Your task to perform on an android device: Search for floor lamps on article.com Image 0: 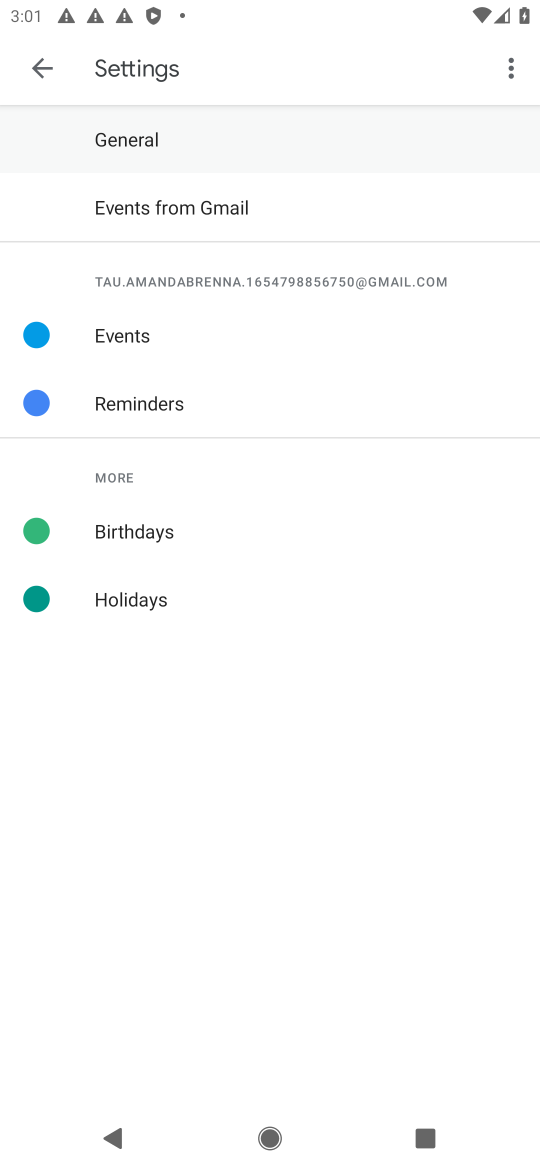
Step 0: press home button
Your task to perform on an android device: Search for floor lamps on article.com Image 1: 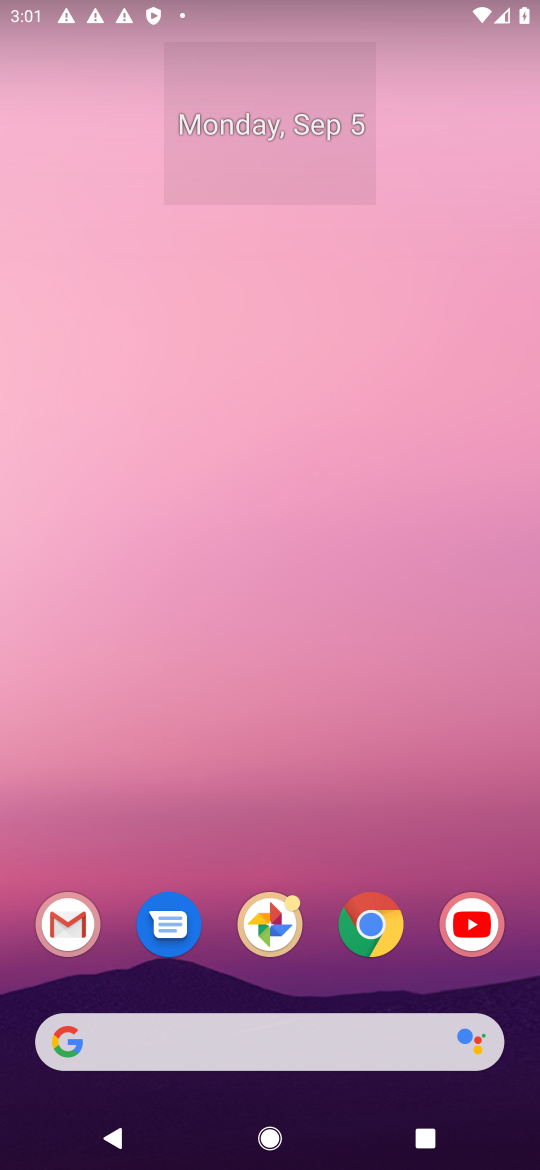
Step 1: drag from (289, 1013) to (300, 361)
Your task to perform on an android device: Search for floor lamps on article.com Image 2: 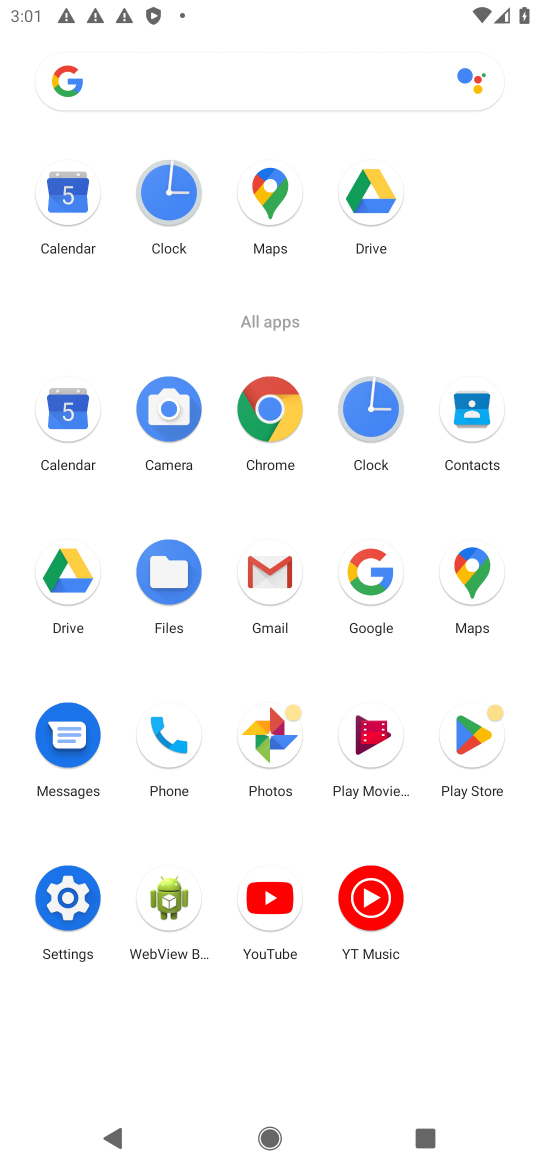
Step 2: click (265, 420)
Your task to perform on an android device: Search for floor lamps on article.com Image 3: 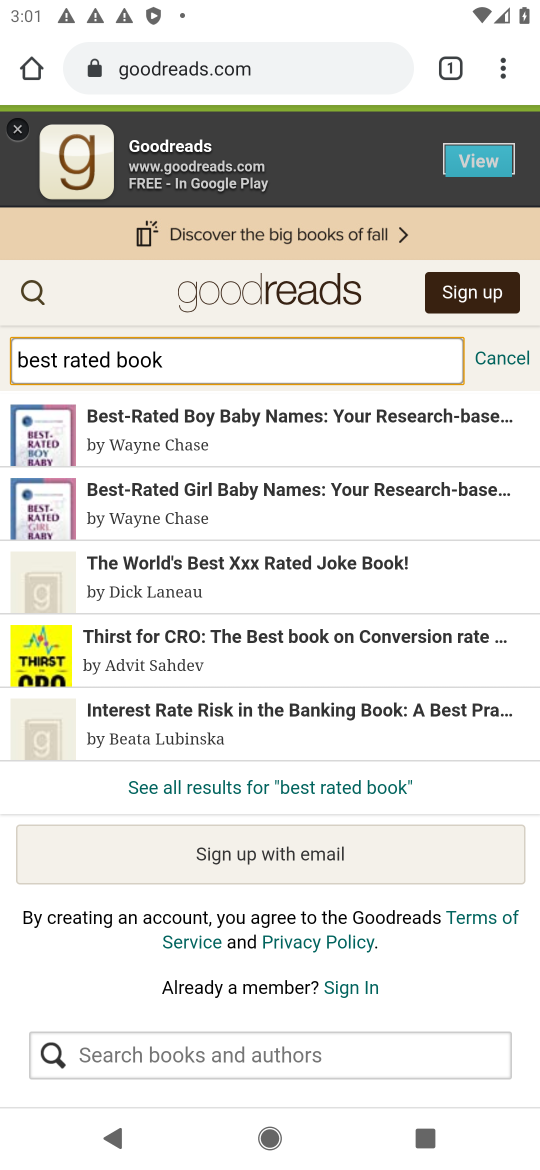
Step 3: click (304, 81)
Your task to perform on an android device: Search for floor lamps on article.com Image 4: 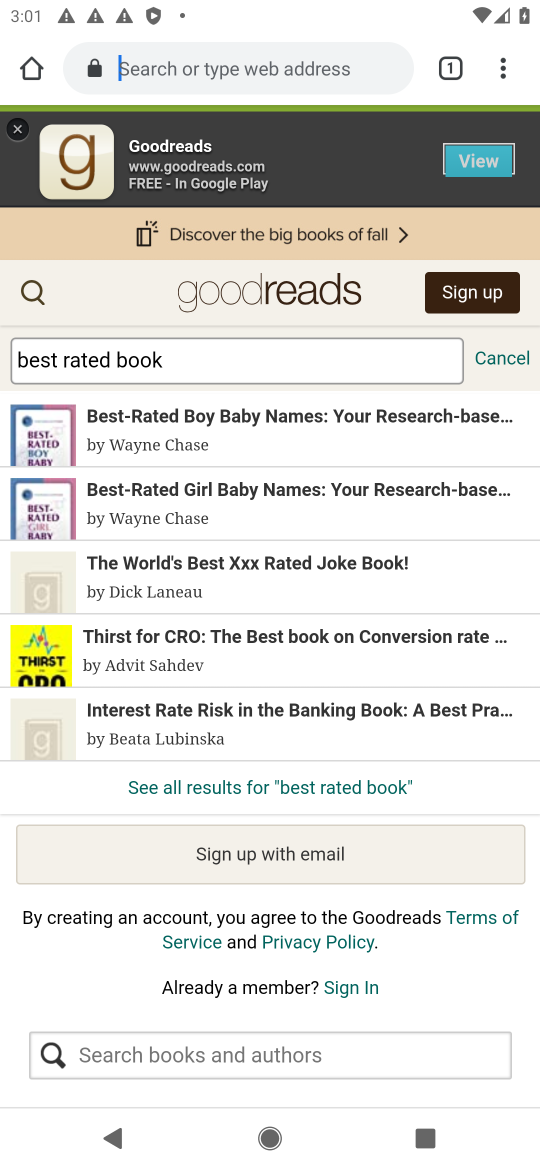
Step 4: click (304, 81)
Your task to perform on an android device: Search for floor lamps on article.com Image 5: 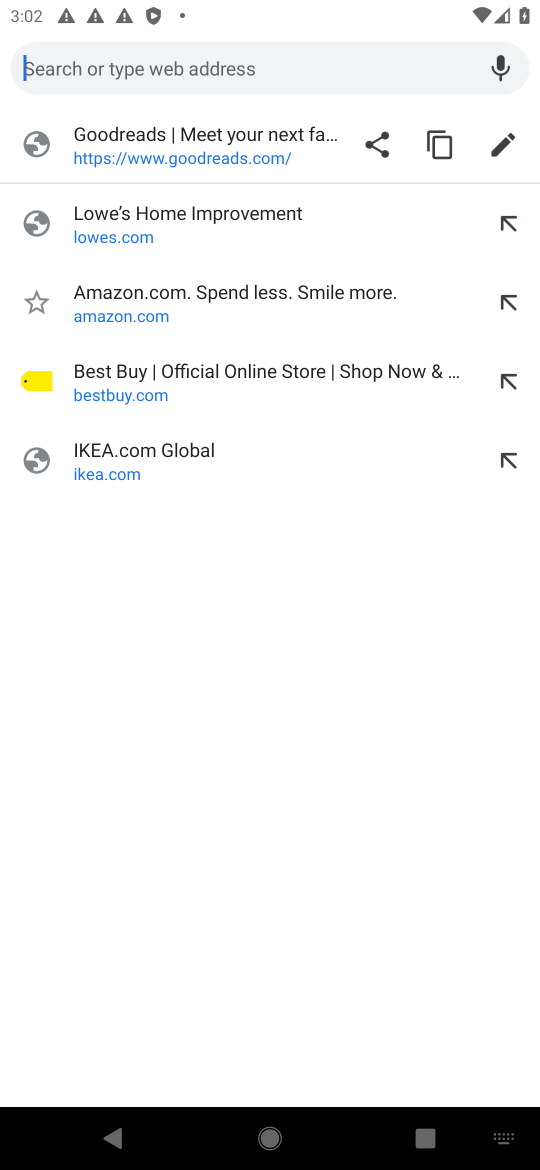
Step 5: type "article.com"
Your task to perform on an android device: Search for floor lamps on article.com Image 6: 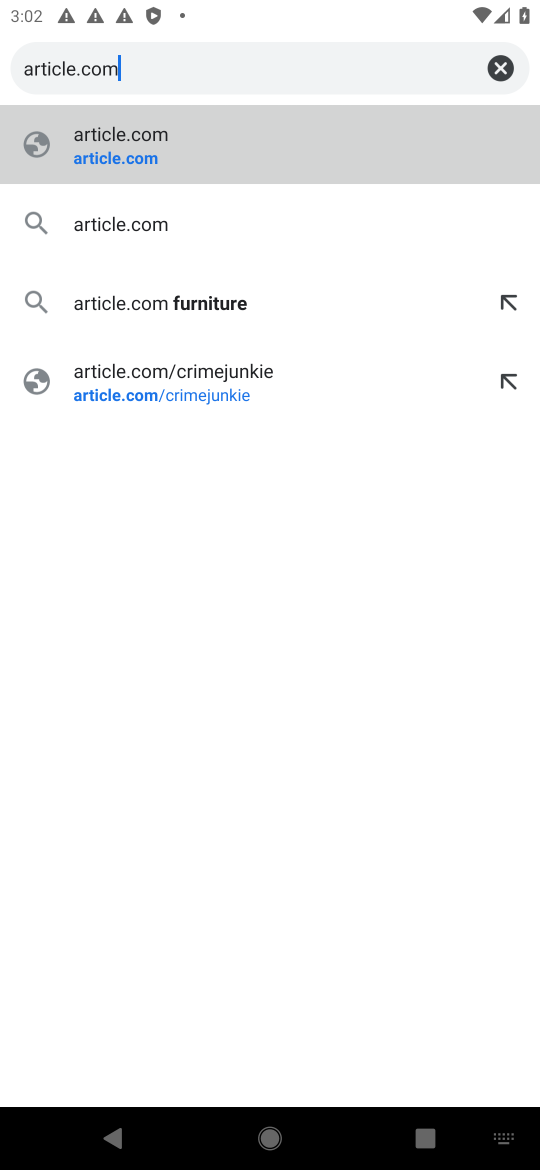
Step 6: click (158, 152)
Your task to perform on an android device: Search for floor lamps on article.com Image 7: 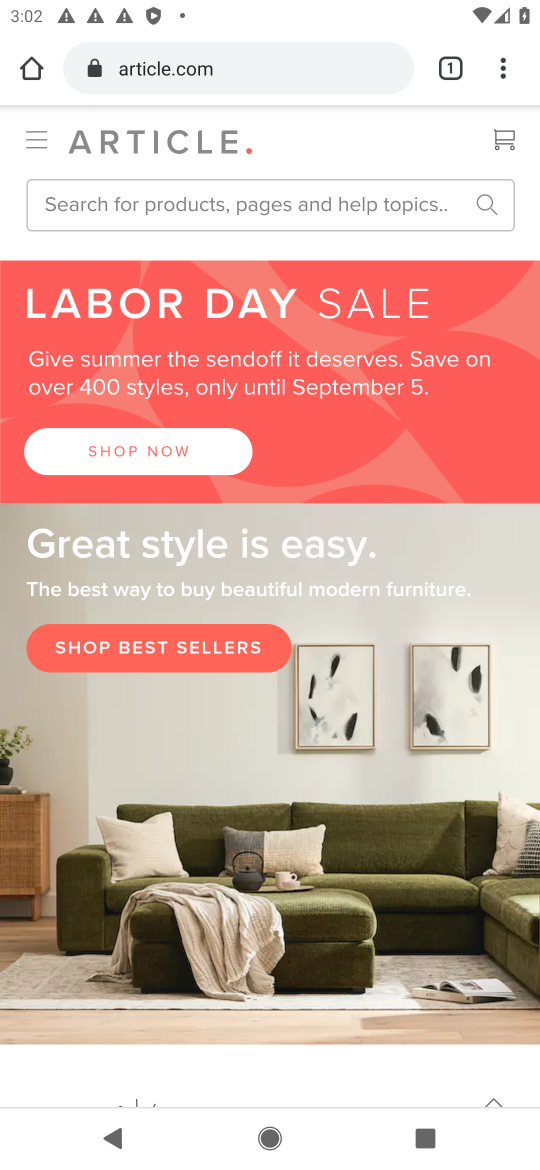
Step 7: click (257, 205)
Your task to perform on an android device: Search for floor lamps on article.com Image 8: 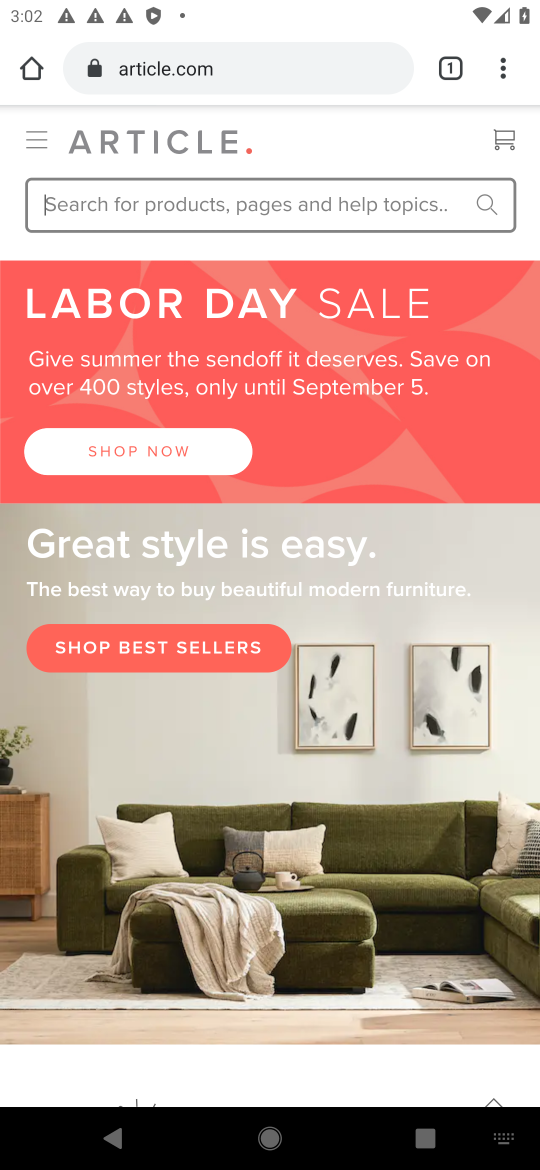
Step 8: click (257, 202)
Your task to perform on an android device: Search for floor lamps on article.com Image 9: 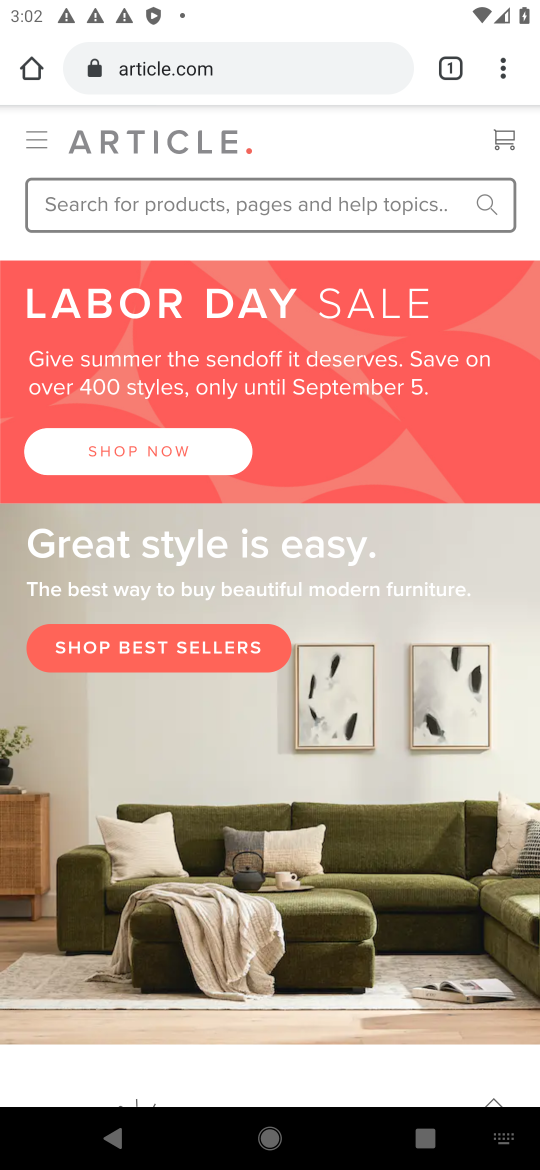
Step 9: type "floor lamps"
Your task to perform on an android device: Search for floor lamps on article.com Image 10: 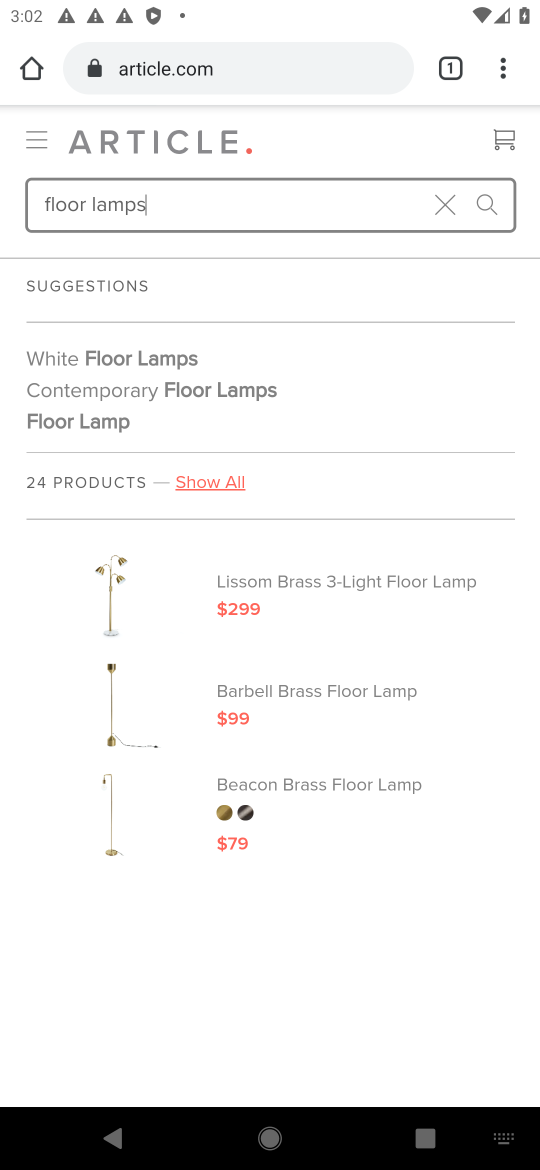
Step 10: click (371, 301)
Your task to perform on an android device: Search for floor lamps on article.com Image 11: 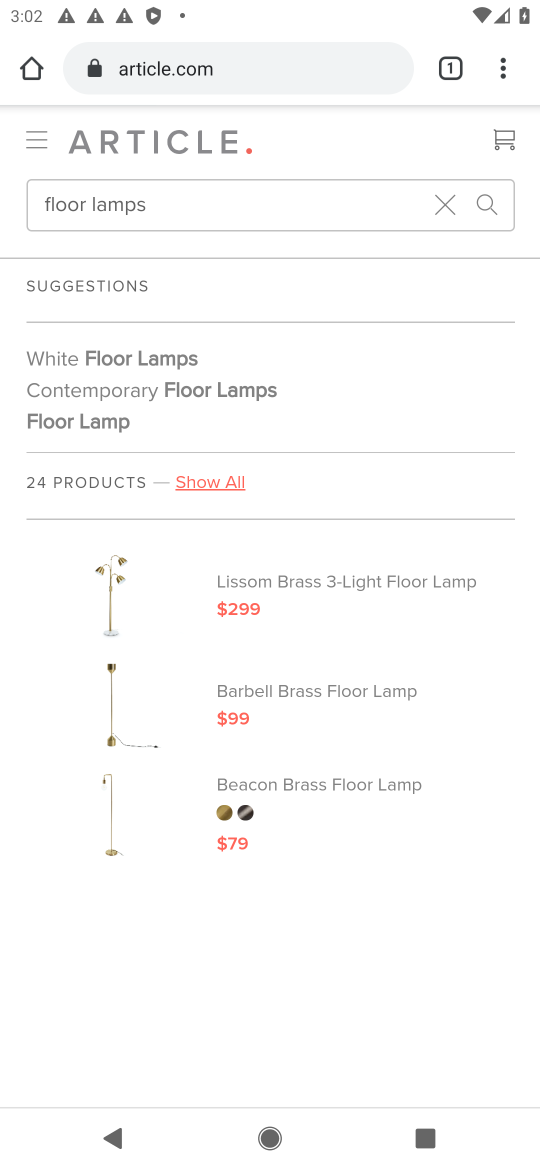
Step 11: click (74, 419)
Your task to perform on an android device: Search for floor lamps on article.com Image 12: 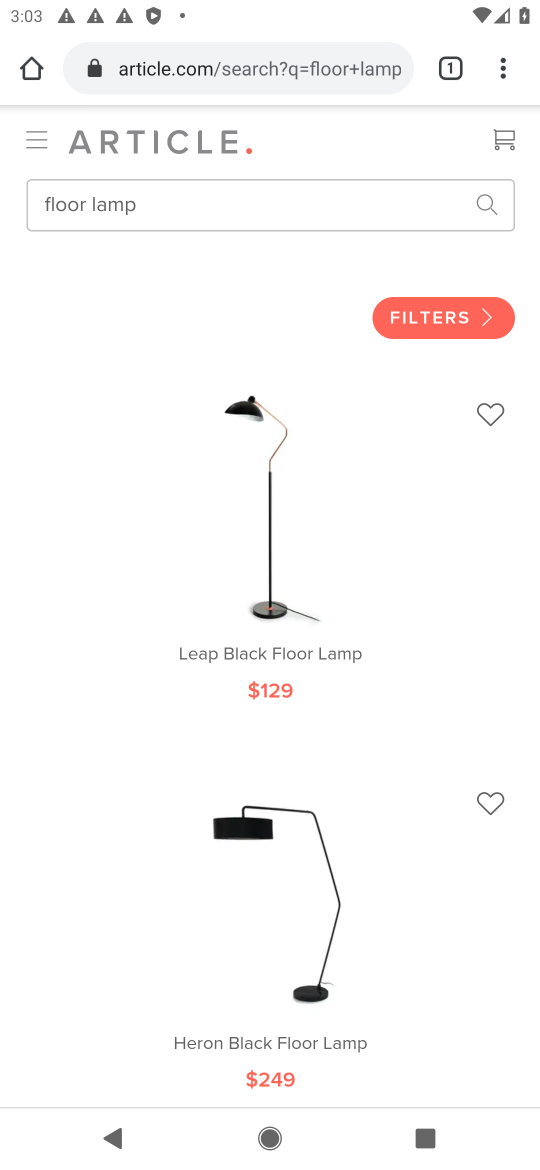
Step 12: task complete